Your task to perform on an android device: turn on notifications settings in the gmail app Image 0: 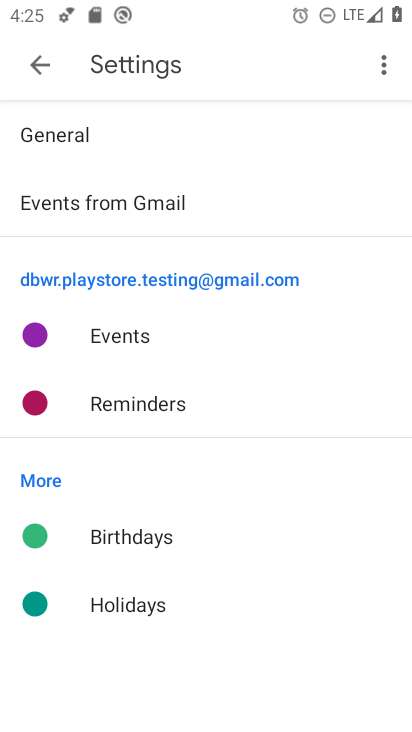
Step 0: press home button
Your task to perform on an android device: turn on notifications settings in the gmail app Image 1: 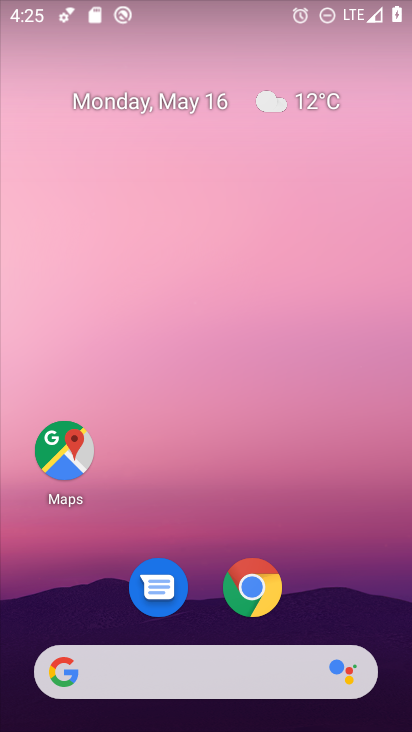
Step 1: drag from (383, 633) to (327, 184)
Your task to perform on an android device: turn on notifications settings in the gmail app Image 2: 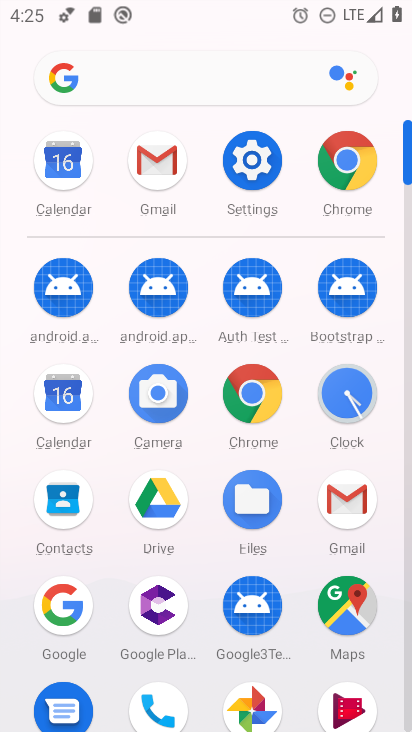
Step 2: click (365, 506)
Your task to perform on an android device: turn on notifications settings in the gmail app Image 3: 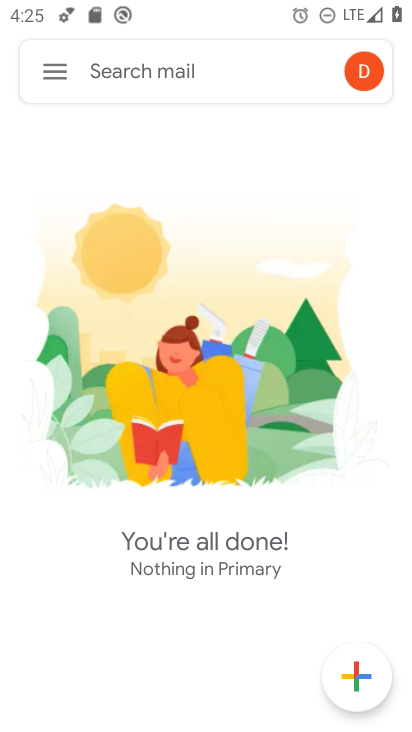
Step 3: click (40, 69)
Your task to perform on an android device: turn on notifications settings in the gmail app Image 4: 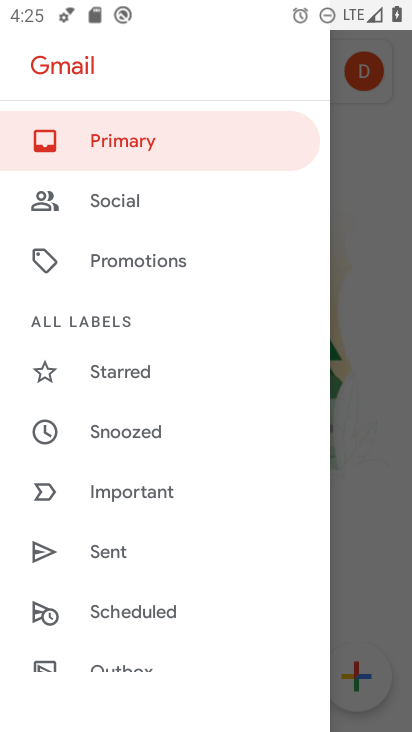
Step 4: drag from (246, 585) to (244, 392)
Your task to perform on an android device: turn on notifications settings in the gmail app Image 5: 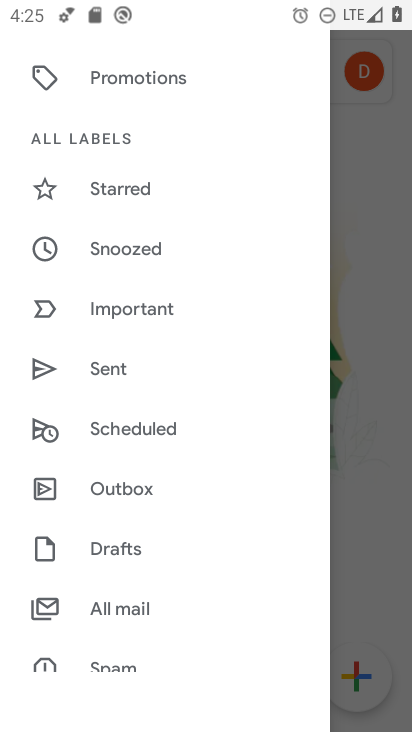
Step 5: drag from (205, 654) to (226, 446)
Your task to perform on an android device: turn on notifications settings in the gmail app Image 6: 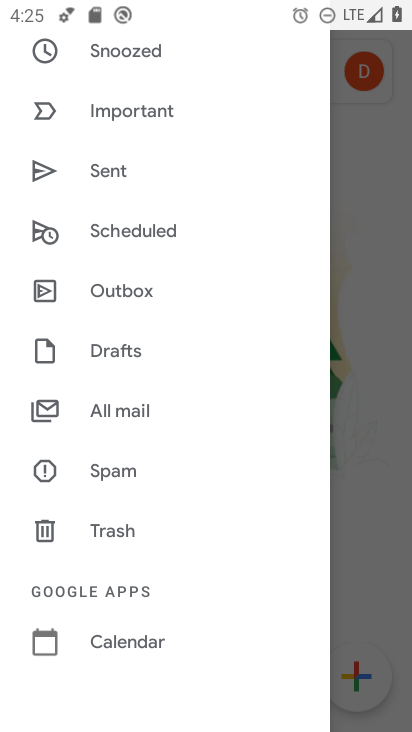
Step 6: drag from (219, 567) to (242, 362)
Your task to perform on an android device: turn on notifications settings in the gmail app Image 7: 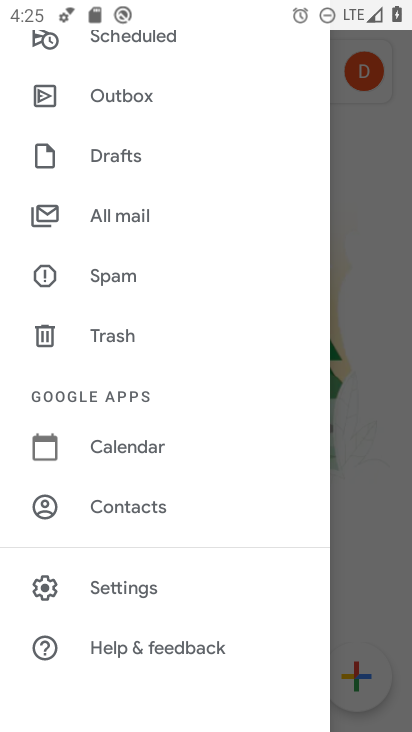
Step 7: click (121, 582)
Your task to perform on an android device: turn on notifications settings in the gmail app Image 8: 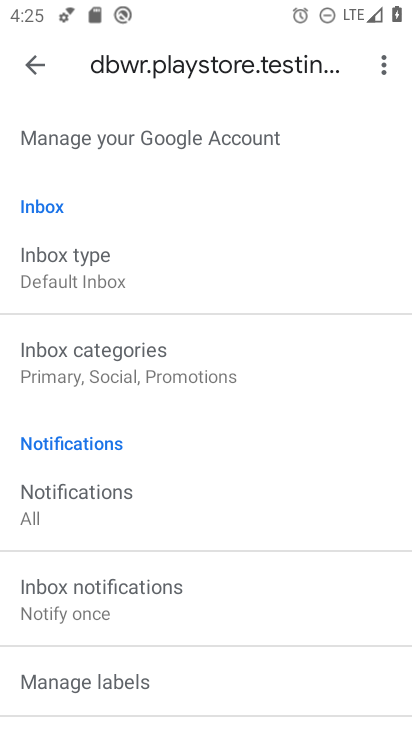
Step 8: drag from (247, 489) to (242, 345)
Your task to perform on an android device: turn on notifications settings in the gmail app Image 9: 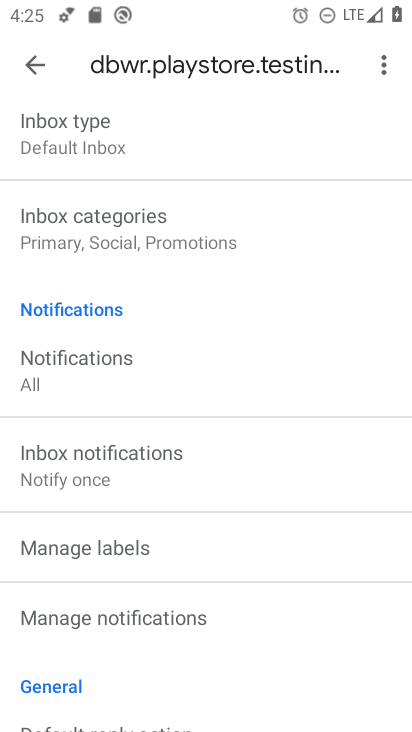
Step 9: drag from (239, 620) to (241, 353)
Your task to perform on an android device: turn on notifications settings in the gmail app Image 10: 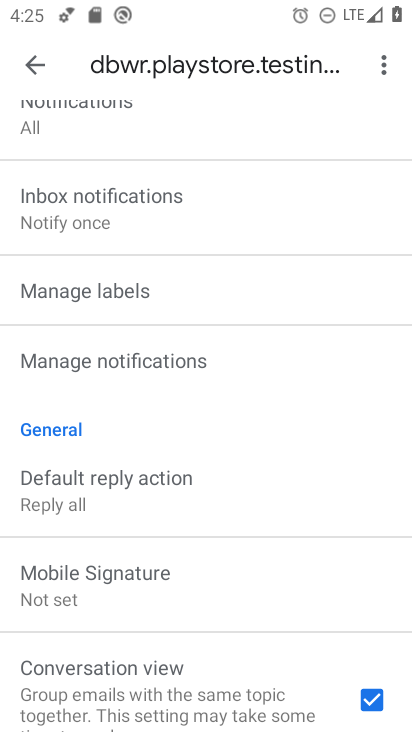
Step 10: drag from (237, 404) to (204, 622)
Your task to perform on an android device: turn on notifications settings in the gmail app Image 11: 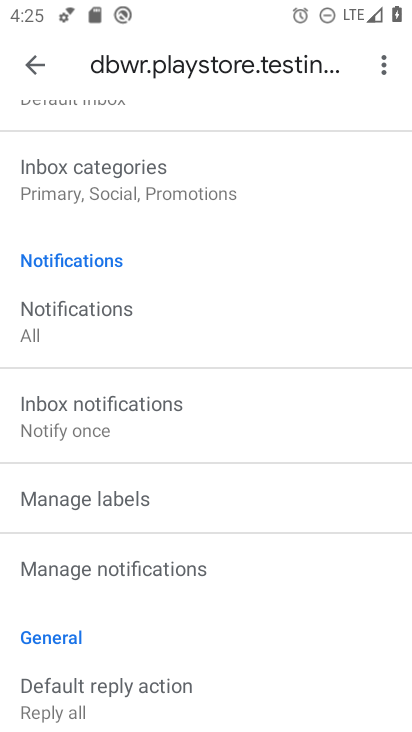
Step 11: drag from (291, 188) to (301, 543)
Your task to perform on an android device: turn on notifications settings in the gmail app Image 12: 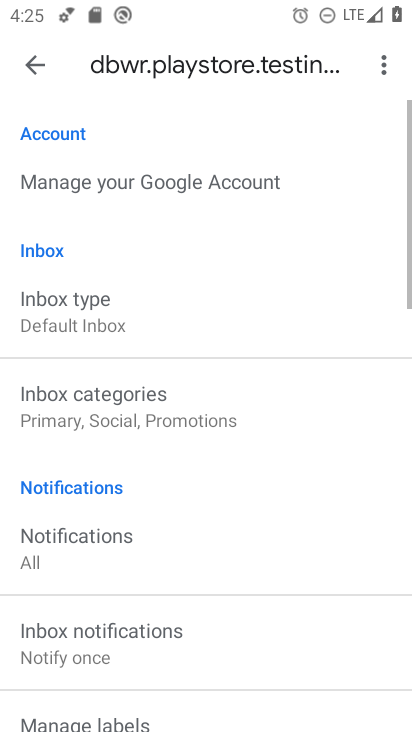
Step 12: drag from (307, 235) to (306, 532)
Your task to perform on an android device: turn on notifications settings in the gmail app Image 13: 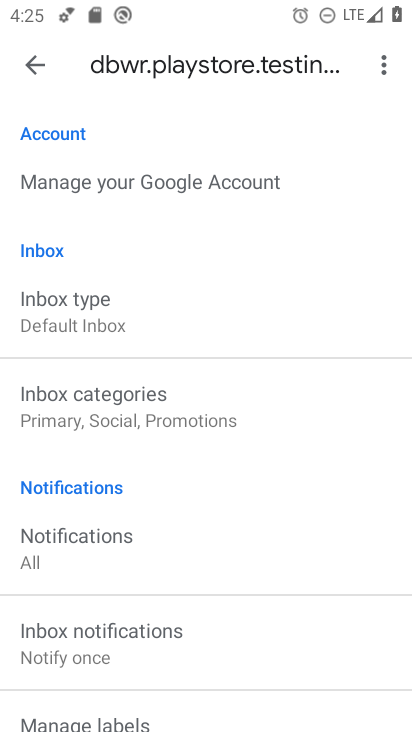
Step 13: click (83, 529)
Your task to perform on an android device: turn on notifications settings in the gmail app Image 14: 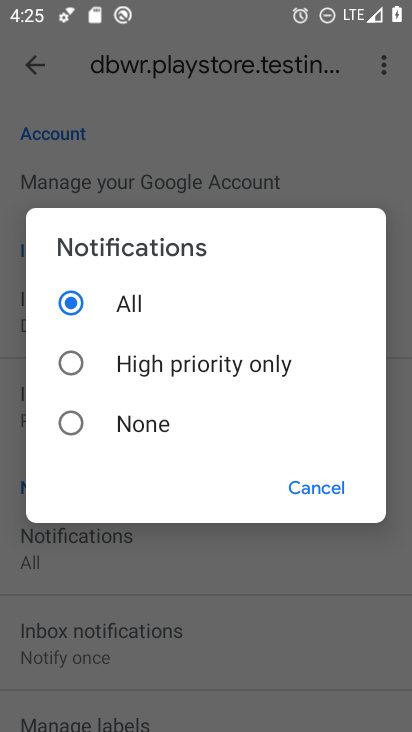
Step 14: click (302, 486)
Your task to perform on an android device: turn on notifications settings in the gmail app Image 15: 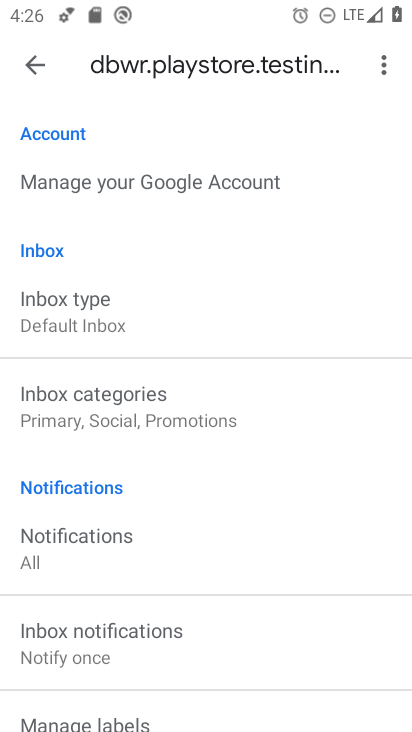
Step 15: task complete